Your task to perform on an android device: Play the last video I watched on Youtube Image 0: 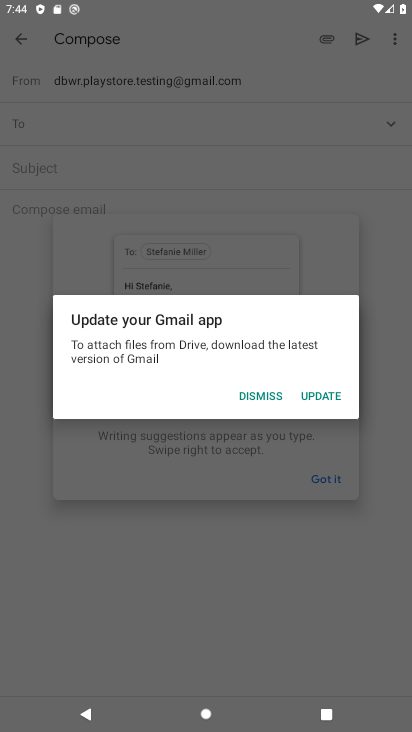
Step 0: press home button
Your task to perform on an android device: Play the last video I watched on Youtube Image 1: 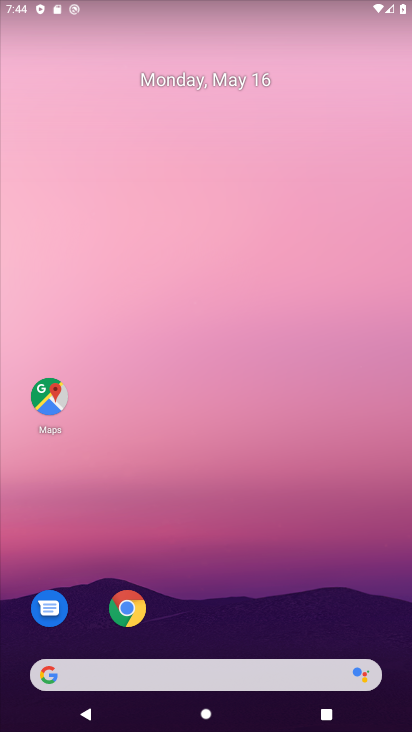
Step 1: drag from (260, 602) to (186, 71)
Your task to perform on an android device: Play the last video I watched on Youtube Image 2: 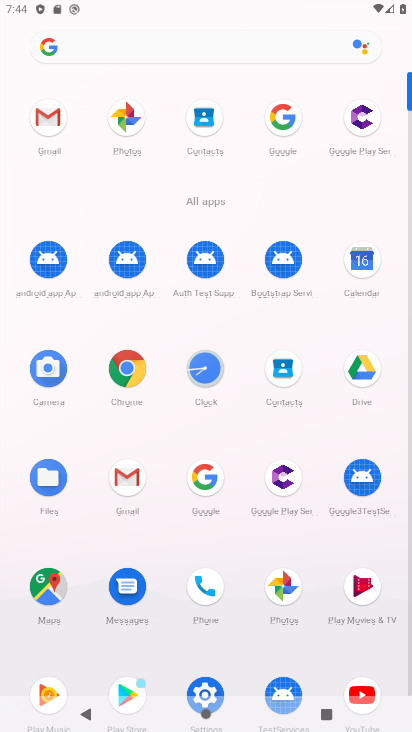
Step 2: drag from (230, 545) to (240, 314)
Your task to perform on an android device: Play the last video I watched on Youtube Image 3: 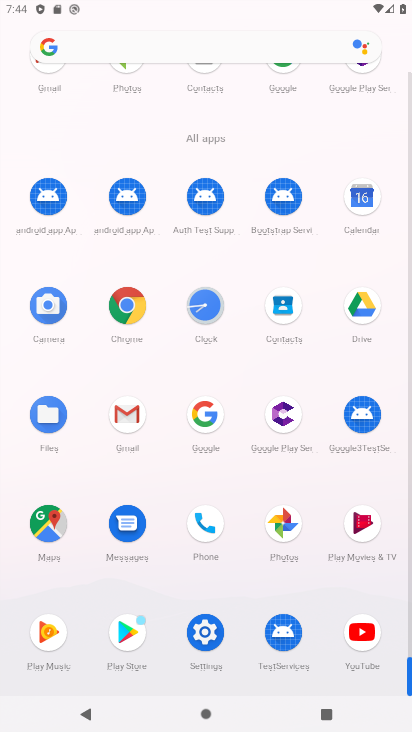
Step 3: click (360, 630)
Your task to perform on an android device: Play the last video I watched on Youtube Image 4: 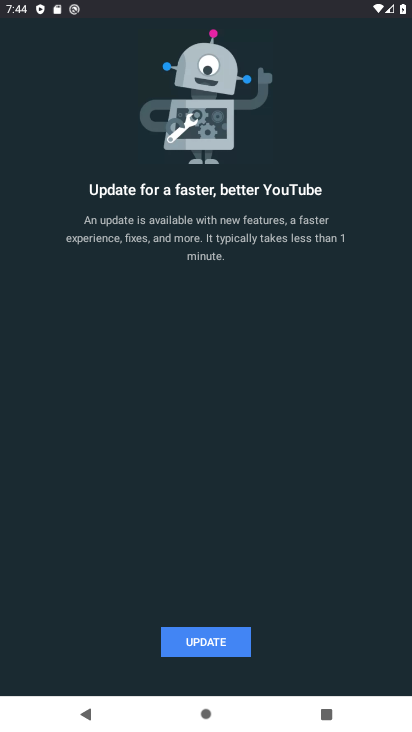
Step 4: click (207, 635)
Your task to perform on an android device: Play the last video I watched on Youtube Image 5: 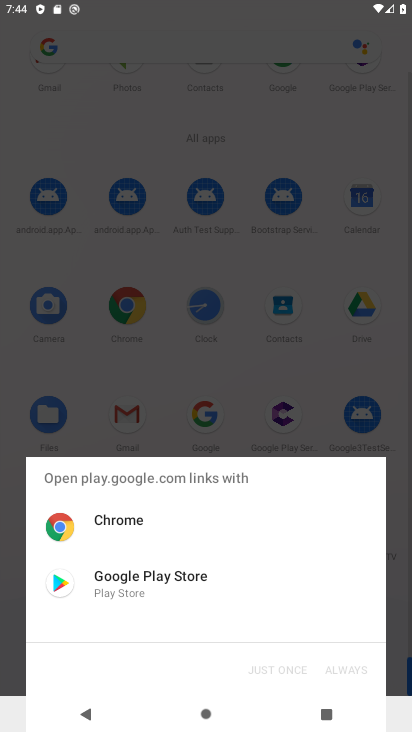
Step 5: click (161, 582)
Your task to perform on an android device: Play the last video I watched on Youtube Image 6: 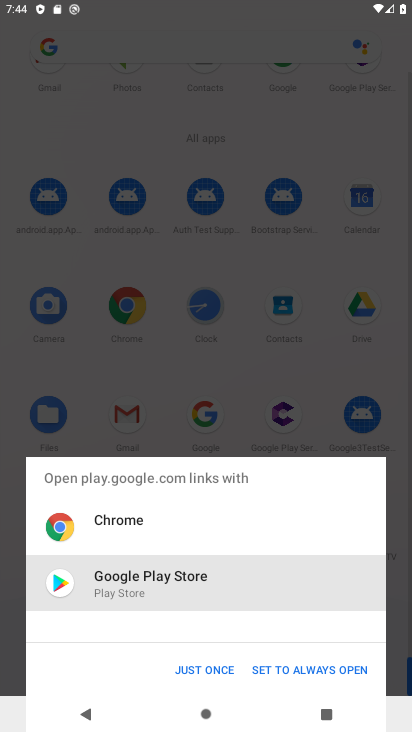
Step 6: click (201, 667)
Your task to perform on an android device: Play the last video I watched on Youtube Image 7: 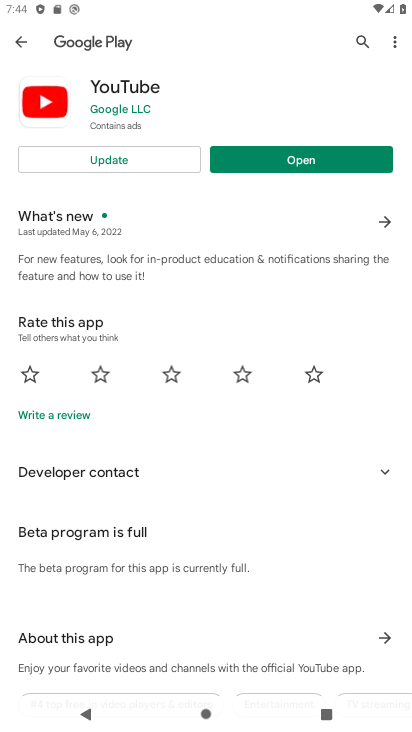
Step 7: click (111, 159)
Your task to perform on an android device: Play the last video I watched on Youtube Image 8: 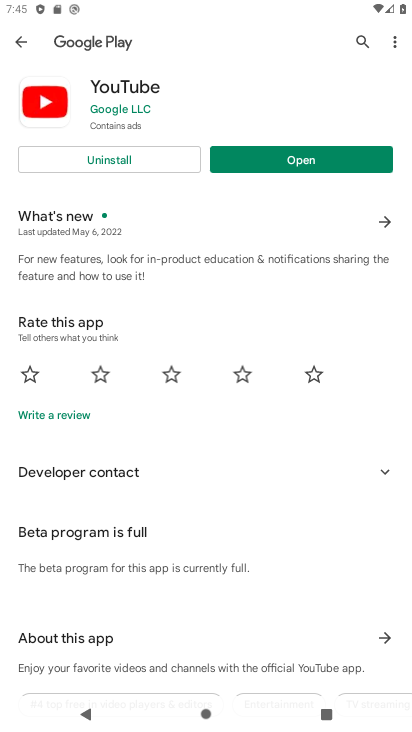
Step 8: click (296, 164)
Your task to perform on an android device: Play the last video I watched on Youtube Image 9: 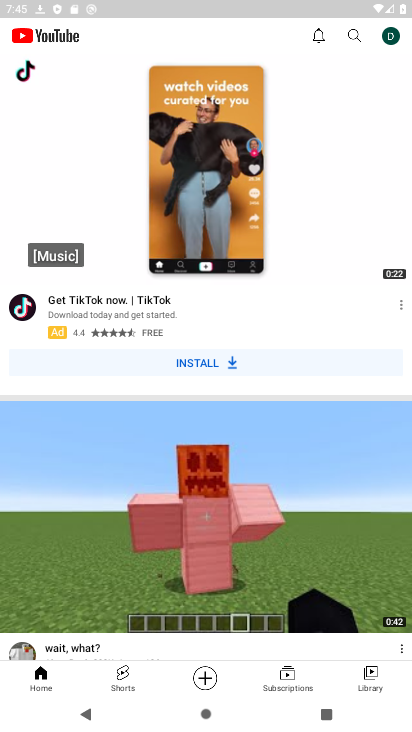
Step 9: click (374, 676)
Your task to perform on an android device: Play the last video I watched on Youtube Image 10: 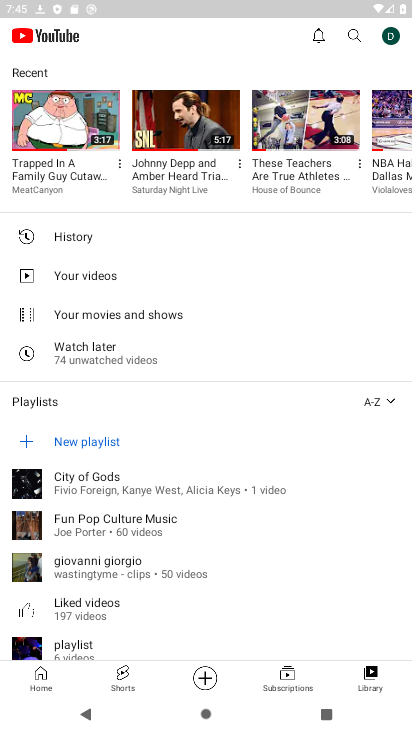
Step 10: click (74, 125)
Your task to perform on an android device: Play the last video I watched on Youtube Image 11: 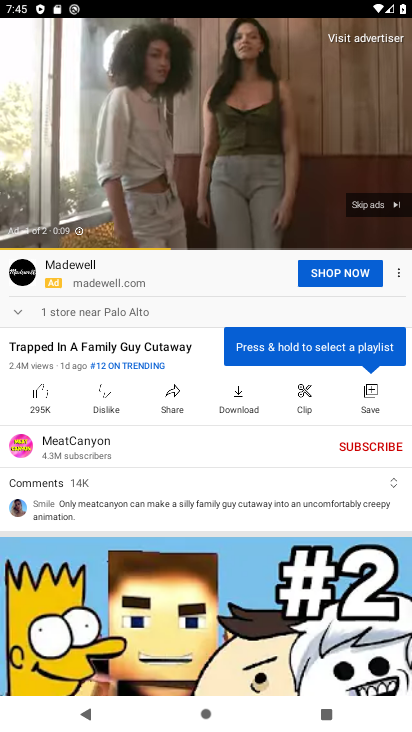
Step 11: click (389, 205)
Your task to perform on an android device: Play the last video I watched on Youtube Image 12: 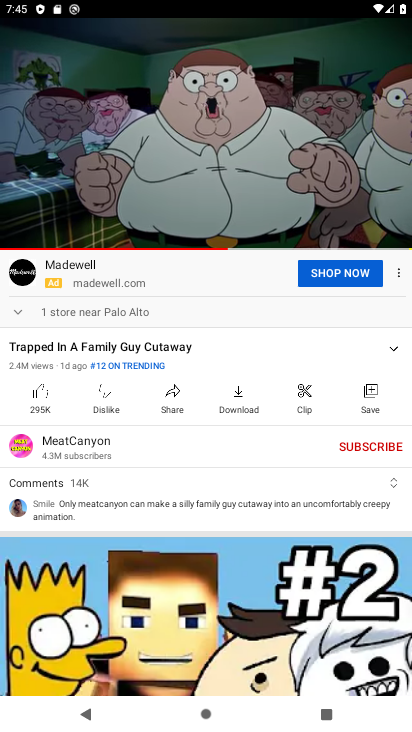
Step 12: task complete